Your task to perform on an android device: Search for a new bike on Walmart. Image 0: 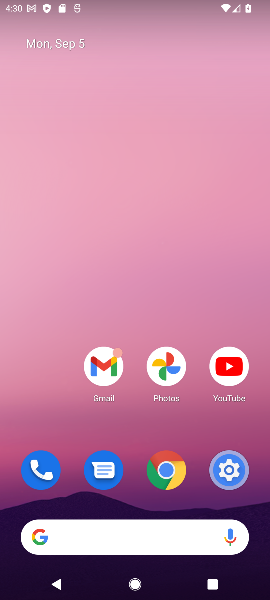
Step 0: click (194, 536)
Your task to perform on an android device: Search for a new bike on Walmart. Image 1: 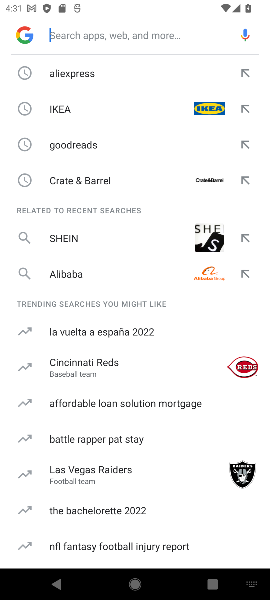
Step 1: click (120, 33)
Your task to perform on an android device: Search for a new bike on Walmart. Image 2: 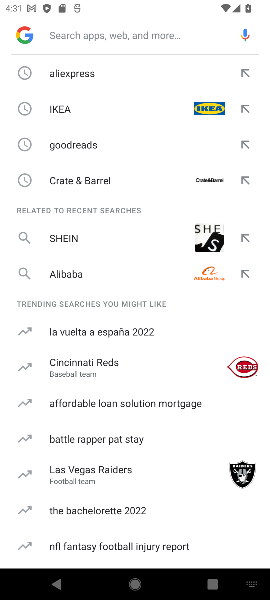
Step 2: type "walmart"
Your task to perform on an android device: Search for a new bike on Walmart. Image 3: 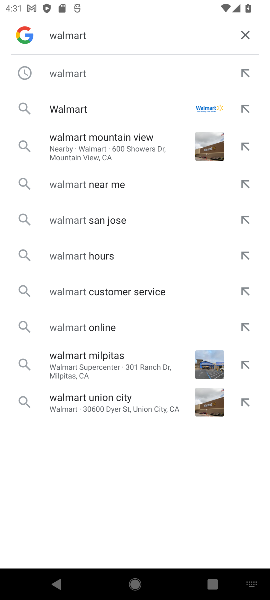
Step 3: press enter
Your task to perform on an android device: Search for a new bike on Walmart. Image 4: 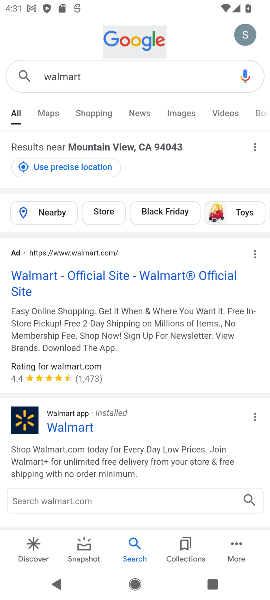
Step 4: click (83, 419)
Your task to perform on an android device: Search for a new bike on Walmart. Image 5: 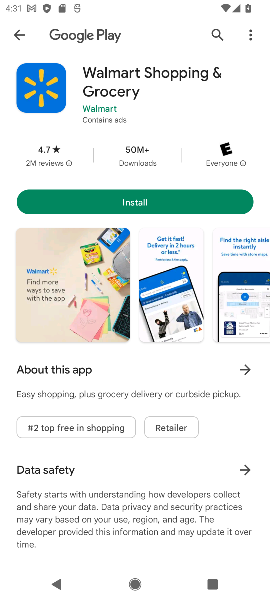
Step 5: click (22, 30)
Your task to perform on an android device: Search for a new bike on Walmart. Image 6: 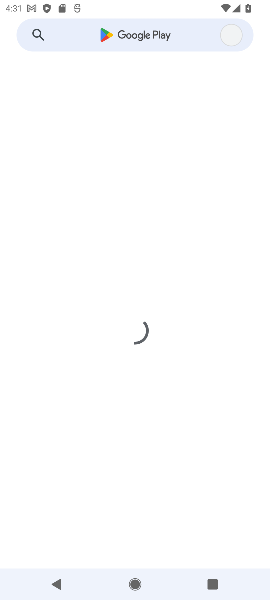
Step 6: press back button
Your task to perform on an android device: Search for a new bike on Walmart. Image 7: 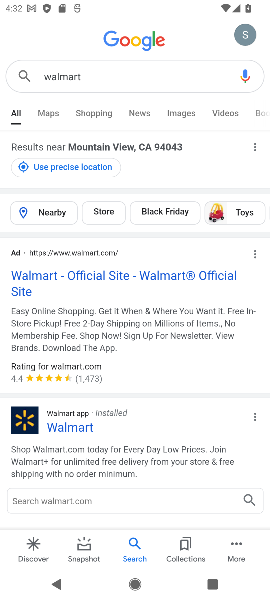
Step 7: drag from (204, 433) to (215, 156)
Your task to perform on an android device: Search for a new bike on Walmart. Image 8: 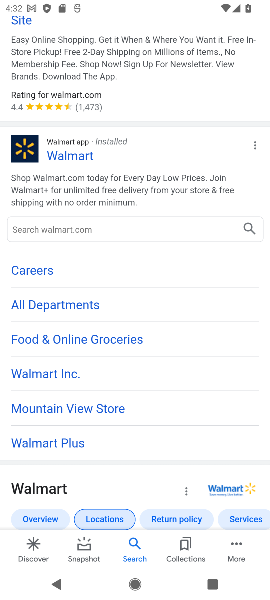
Step 8: click (99, 413)
Your task to perform on an android device: Search for a new bike on Walmart. Image 9: 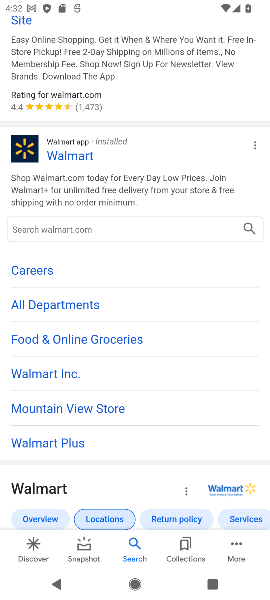
Step 9: drag from (100, 411) to (171, 196)
Your task to perform on an android device: Search for a new bike on Walmart. Image 10: 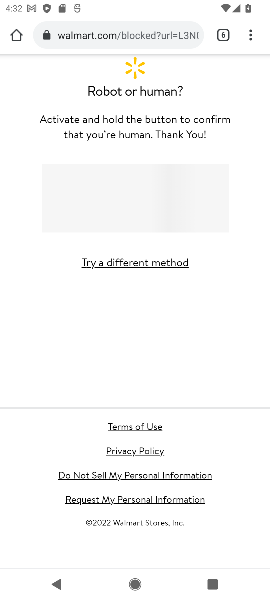
Step 10: press back button
Your task to perform on an android device: Search for a new bike on Walmart. Image 11: 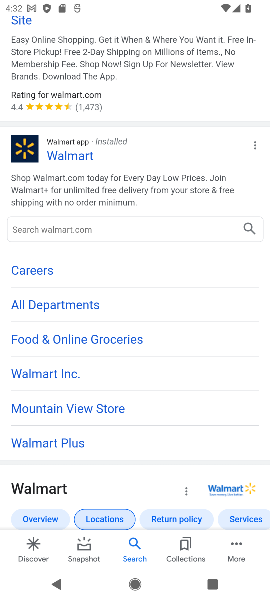
Step 11: drag from (210, 378) to (241, 178)
Your task to perform on an android device: Search for a new bike on Walmart. Image 12: 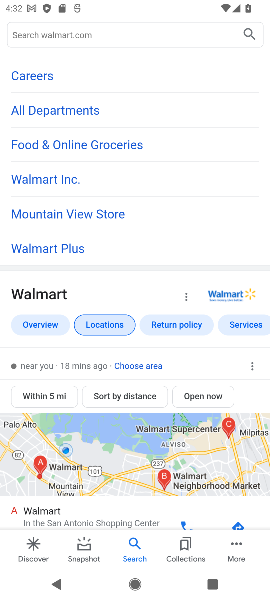
Step 12: drag from (209, 365) to (223, 147)
Your task to perform on an android device: Search for a new bike on Walmart. Image 13: 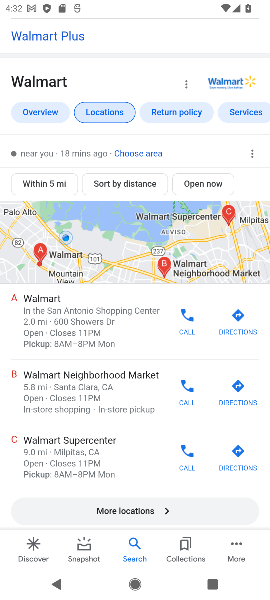
Step 13: drag from (131, 399) to (187, 125)
Your task to perform on an android device: Search for a new bike on Walmart. Image 14: 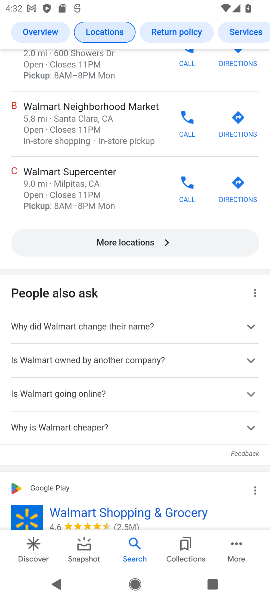
Step 14: drag from (128, 435) to (229, 110)
Your task to perform on an android device: Search for a new bike on Walmart. Image 15: 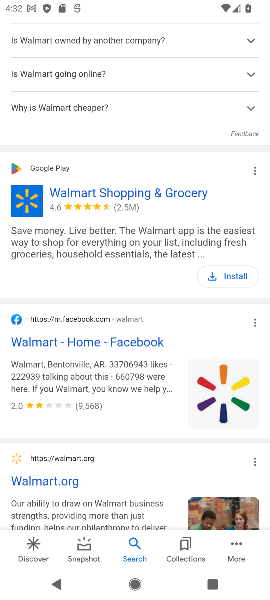
Step 15: click (46, 482)
Your task to perform on an android device: Search for a new bike on Walmart. Image 16: 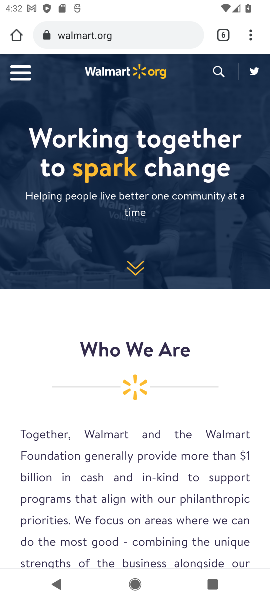
Step 16: click (26, 79)
Your task to perform on an android device: Search for a new bike on Walmart. Image 17: 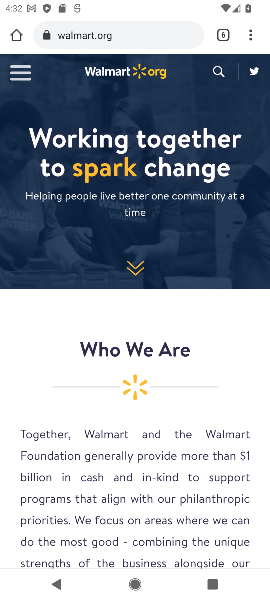
Step 17: click (18, 28)
Your task to perform on an android device: Search for a new bike on Walmart. Image 18: 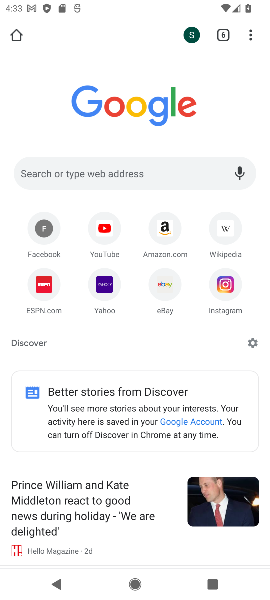
Step 18: click (124, 175)
Your task to perform on an android device: Search for a new bike on Walmart. Image 19: 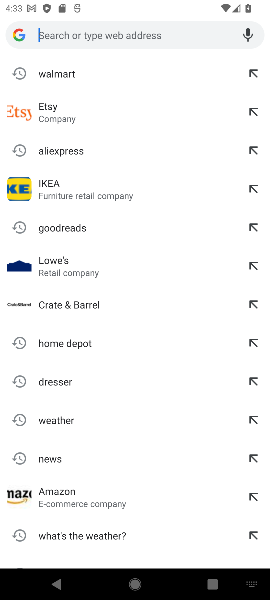
Step 19: click (60, 71)
Your task to perform on an android device: Search for a new bike on Walmart. Image 20: 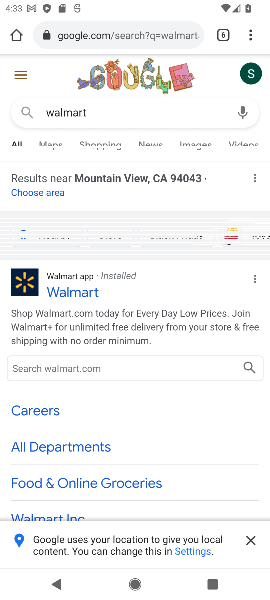
Step 20: click (100, 476)
Your task to perform on an android device: Search for a new bike on Walmart. Image 21: 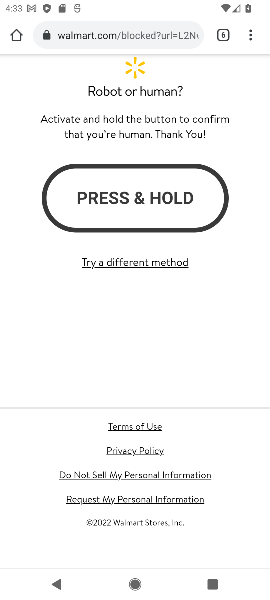
Step 21: click (153, 204)
Your task to perform on an android device: Search for a new bike on Walmart. Image 22: 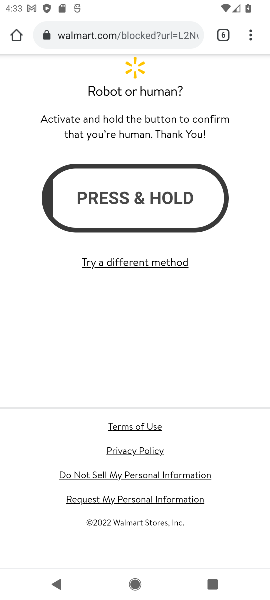
Step 22: click (153, 204)
Your task to perform on an android device: Search for a new bike on Walmart. Image 23: 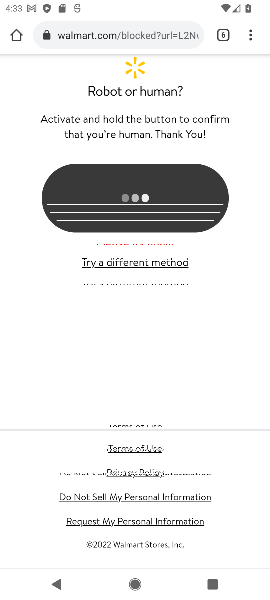
Step 23: click (153, 203)
Your task to perform on an android device: Search for a new bike on Walmart. Image 24: 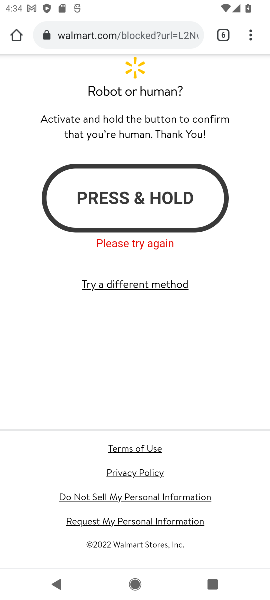
Step 24: click (153, 204)
Your task to perform on an android device: Search for a new bike on Walmart. Image 25: 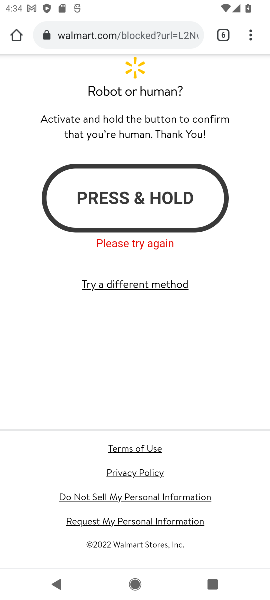
Step 25: click (152, 202)
Your task to perform on an android device: Search for a new bike on Walmart. Image 26: 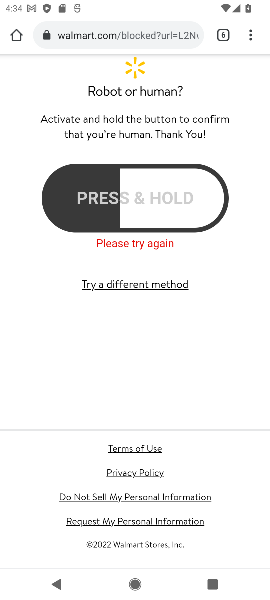
Step 26: click (152, 202)
Your task to perform on an android device: Search for a new bike on Walmart. Image 27: 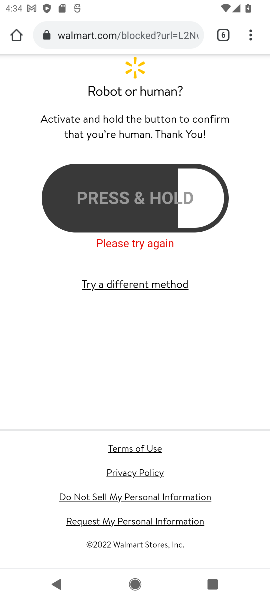
Step 27: click (152, 202)
Your task to perform on an android device: Search for a new bike on Walmart. Image 28: 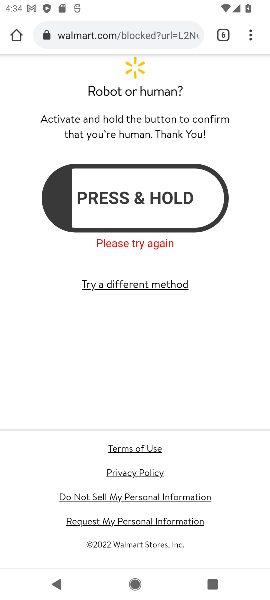
Step 28: task complete